Your task to perform on an android device: Open Google Chrome and click the shortcut for Amazon.com Image 0: 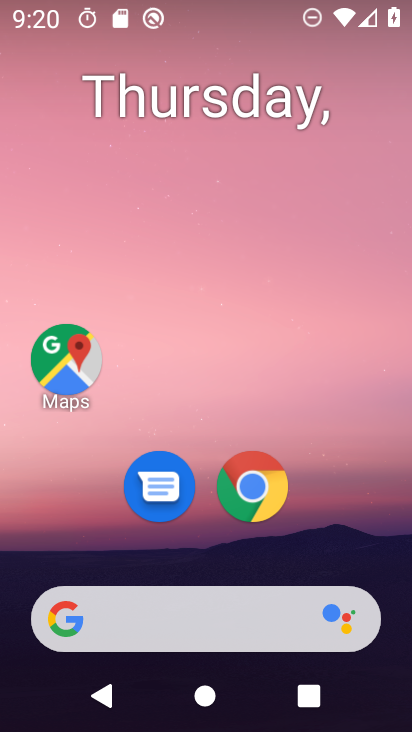
Step 0: click (257, 474)
Your task to perform on an android device: Open Google Chrome and click the shortcut for Amazon.com Image 1: 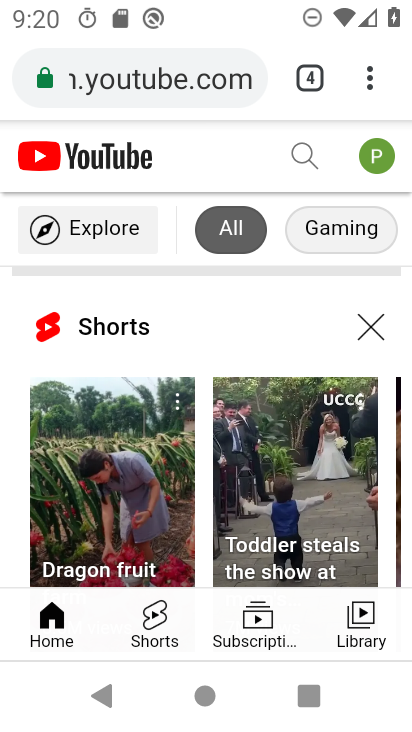
Step 1: click (309, 81)
Your task to perform on an android device: Open Google Chrome and click the shortcut for Amazon.com Image 2: 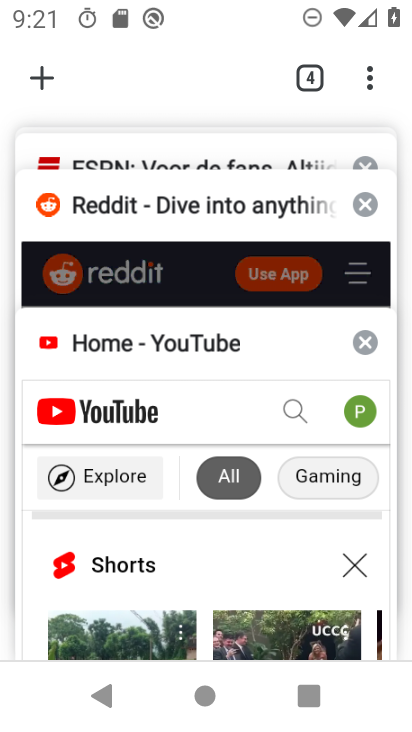
Step 2: click (34, 73)
Your task to perform on an android device: Open Google Chrome and click the shortcut for Amazon.com Image 3: 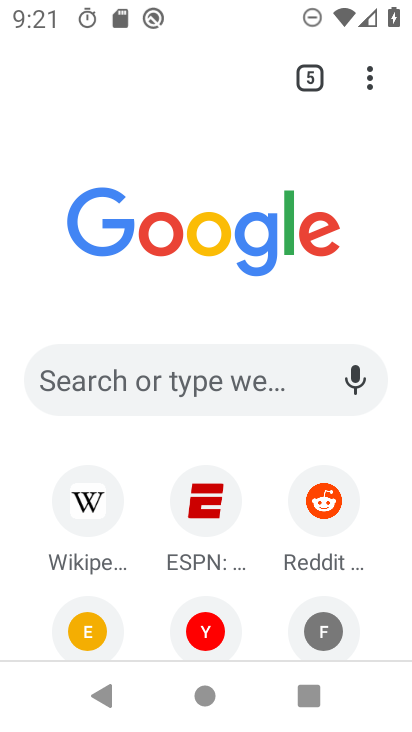
Step 3: drag from (207, 608) to (256, 482)
Your task to perform on an android device: Open Google Chrome and click the shortcut for Amazon.com Image 4: 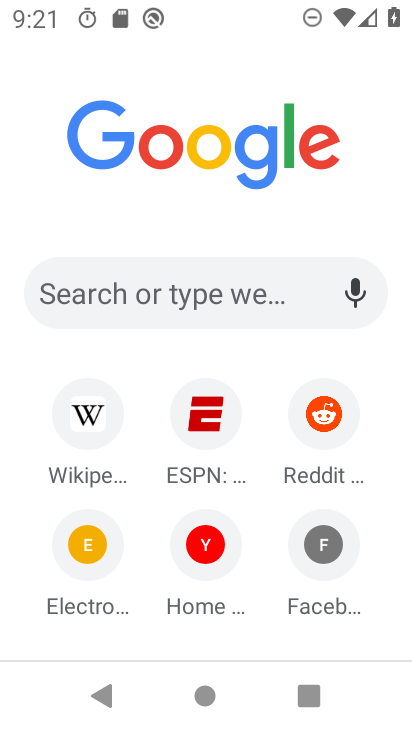
Step 4: click (168, 313)
Your task to perform on an android device: Open Google Chrome and click the shortcut for Amazon.com Image 5: 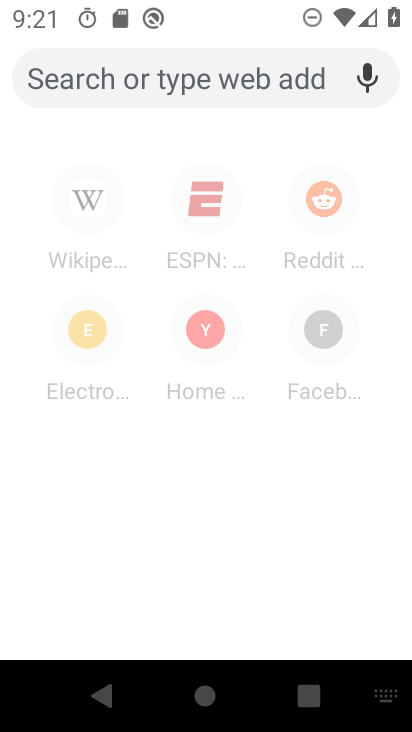
Step 5: type "amazon.com"
Your task to perform on an android device: Open Google Chrome and click the shortcut for Amazon.com Image 6: 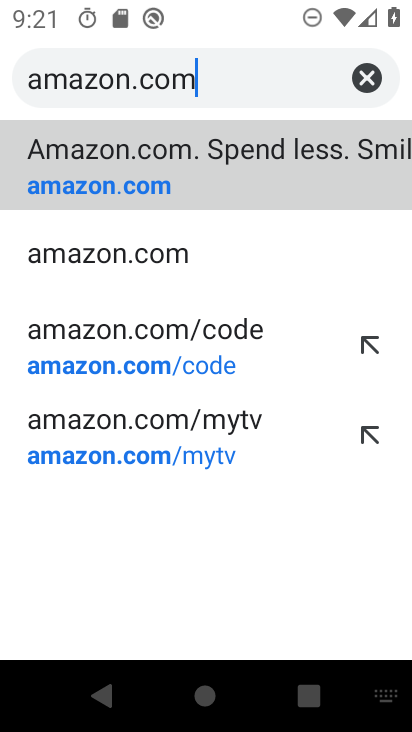
Step 6: click (210, 181)
Your task to perform on an android device: Open Google Chrome and click the shortcut for Amazon.com Image 7: 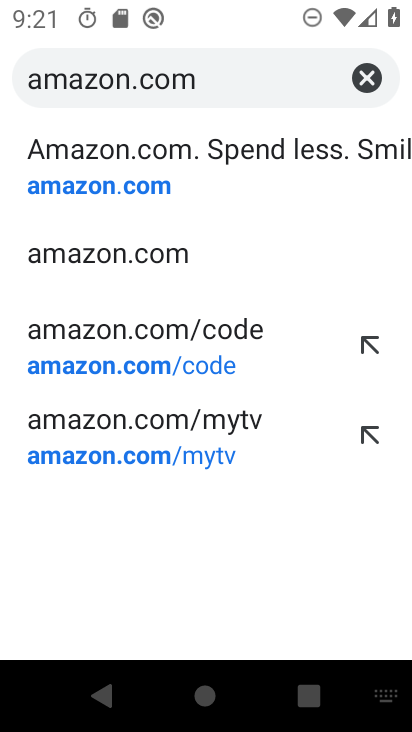
Step 7: click (131, 153)
Your task to perform on an android device: Open Google Chrome and click the shortcut for Amazon.com Image 8: 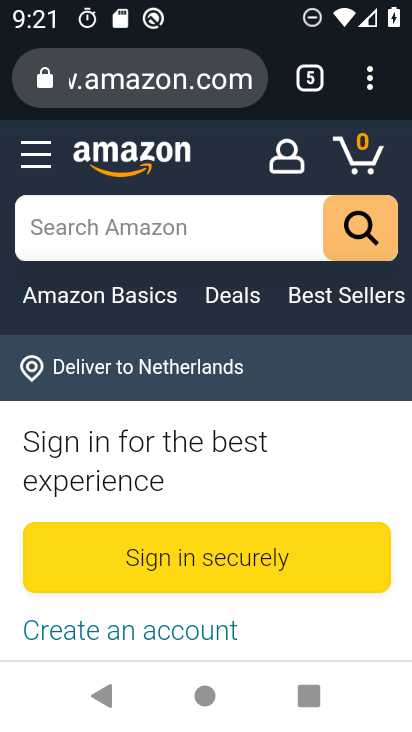
Step 8: task complete